Your task to perform on an android device: clear all cookies in the chrome app Image 0: 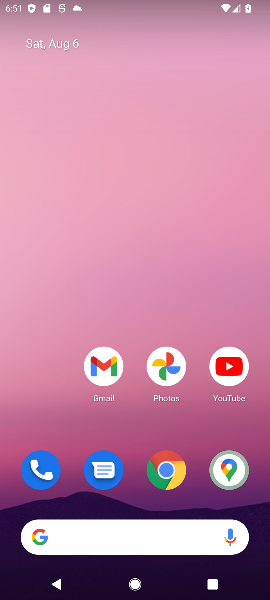
Step 0: drag from (31, 382) to (31, 104)
Your task to perform on an android device: clear all cookies in the chrome app Image 1: 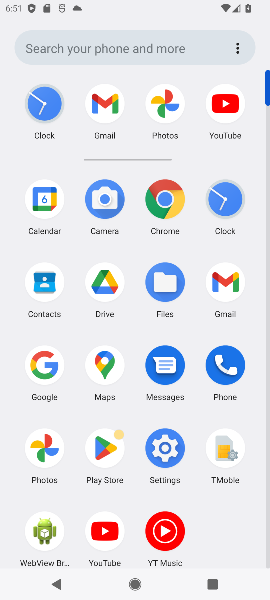
Step 1: click (168, 196)
Your task to perform on an android device: clear all cookies in the chrome app Image 2: 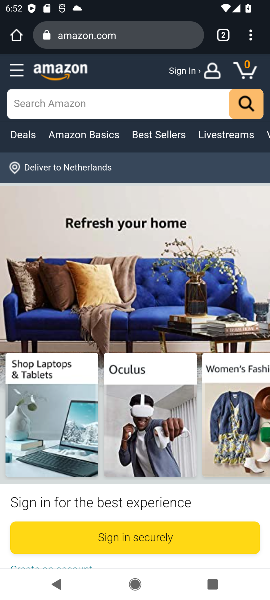
Step 2: drag from (248, 41) to (141, 500)
Your task to perform on an android device: clear all cookies in the chrome app Image 3: 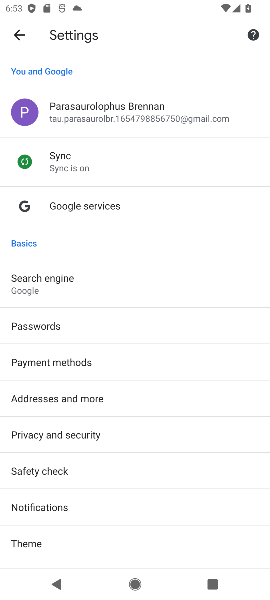
Step 3: drag from (109, 495) to (125, 253)
Your task to perform on an android device: clear all cookies in the chrome app Image 4: 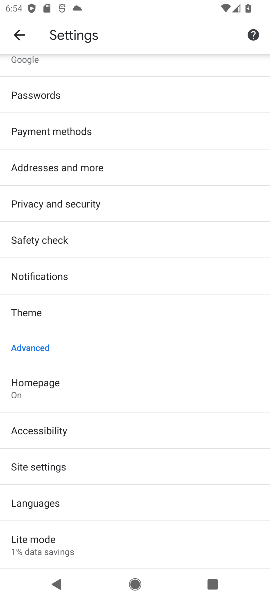
Step 4: drag from (147, 285) to (125, 110)
Your task to perform on an android device: clear all cookies in the chrome app Image 5: 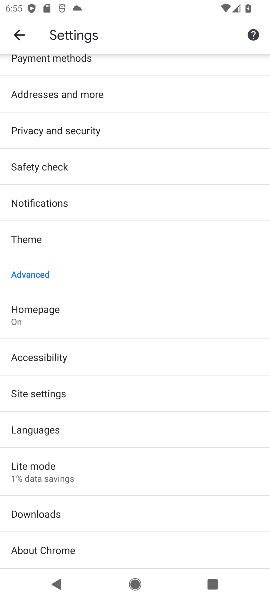
Step 5: click (59, 133)
Your task to perform on an android device: clear all cookies in the chrome app Image 6: 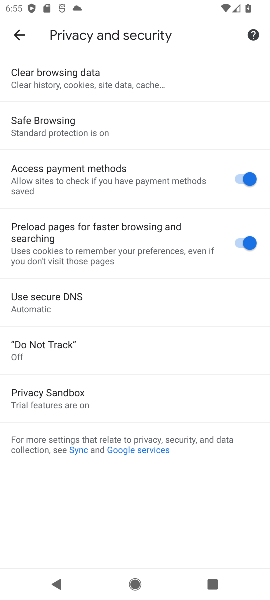
Step 6: click (139, 82)
Your task to perform on an android device: clear all cookies in the chrome app Image 7: 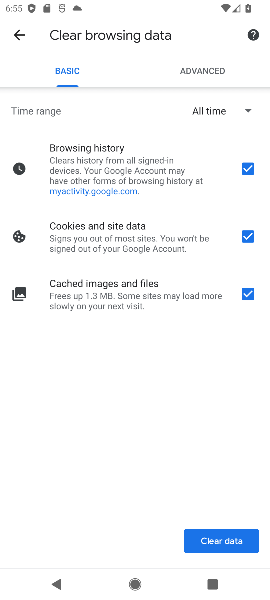
Step 7: click (191, 537)
Your task to perform on an android device: clear all cookies in the chrome app Image 8: 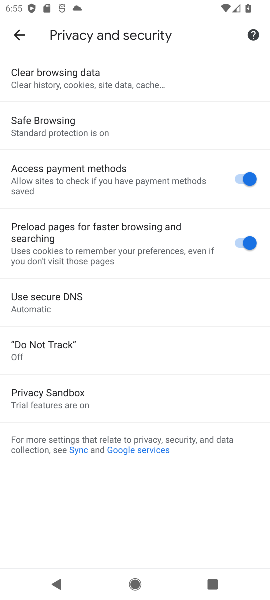
Step 8: click (40, 81)
Your task to perform on an android device: clear all cookies in the chrome app Image 9: 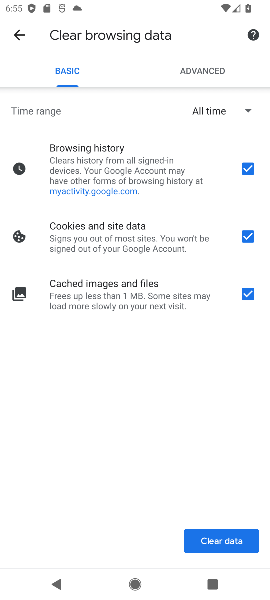
Step 9: click (206, 549)
Your task to perform on an android device: clear all cookies in the chrome app Image 10: 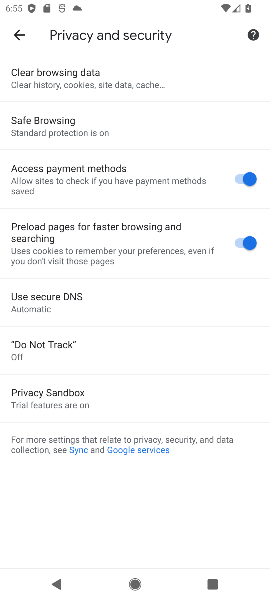
Step 10: task complete